Your task to perform on an android device: turn off location Image 0: 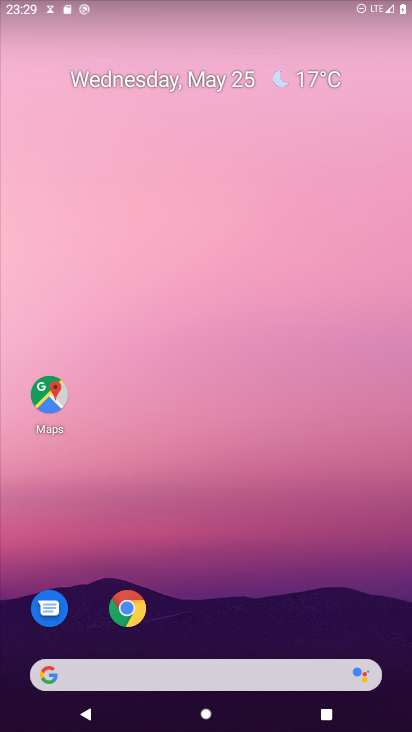
Step 0: drag from (283, 460) to (213, 67)
Your task to perform on an android device: turn off location Image 1: 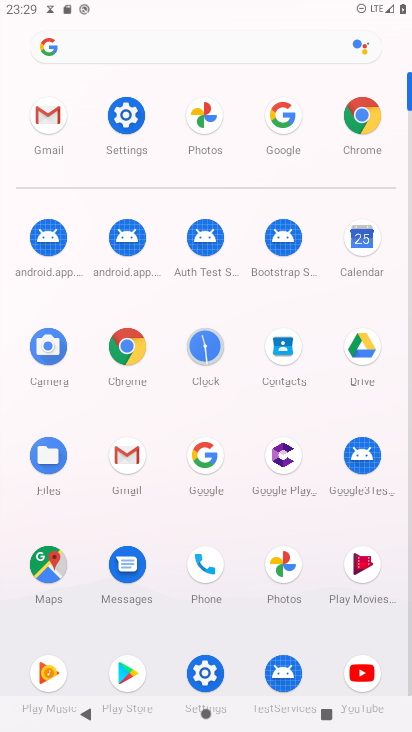
Step 1: click (129, 136)
Your task to perform on an android device: turn off location Image 2: 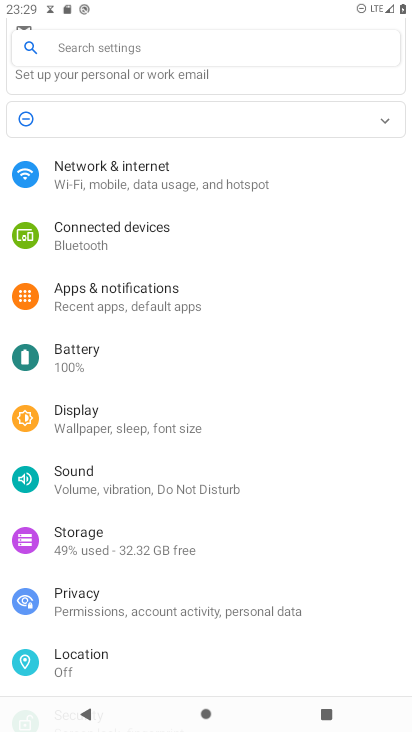
Step 2: click (186, 670)
Your task to perform on an android device: turn off location Image 3: 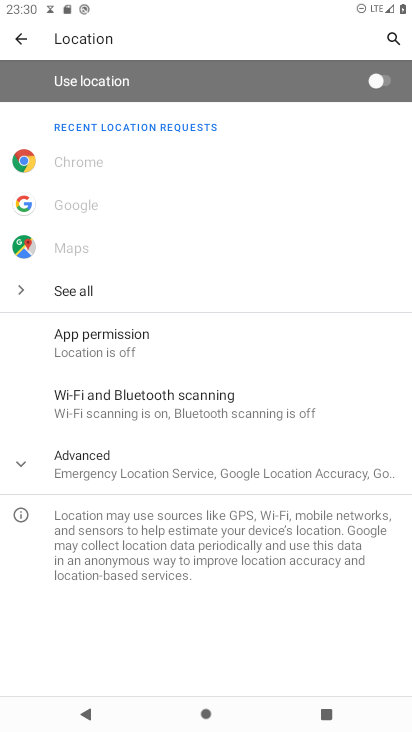
Step 3: task complete